Your task to perform on an android device: Do I have any events this weekend? Image 0: 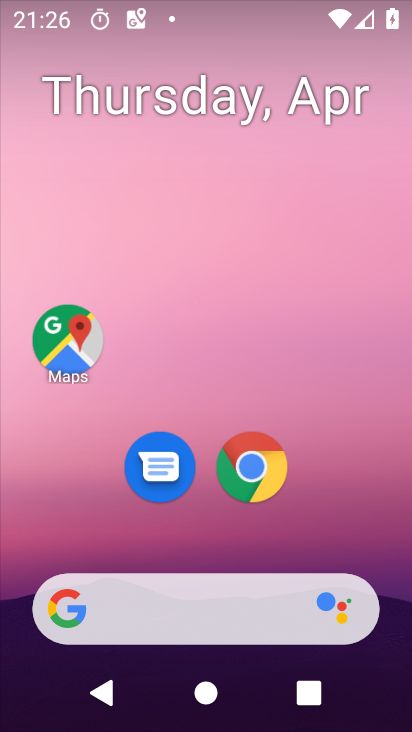
Step 0: drag from (217, 565) to (241, 7)
Your task to perform on an android device: Do I have any events this weekend? Image 1: 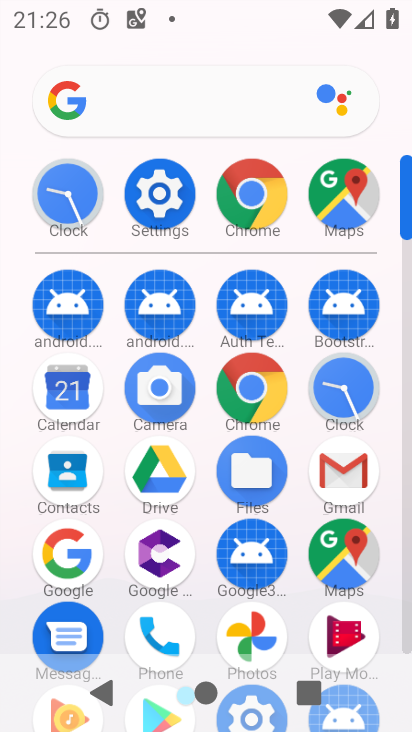
Step 1: click (63, 406)
Your task to perform on an android device: Do I have any events this weekend? Image 2: 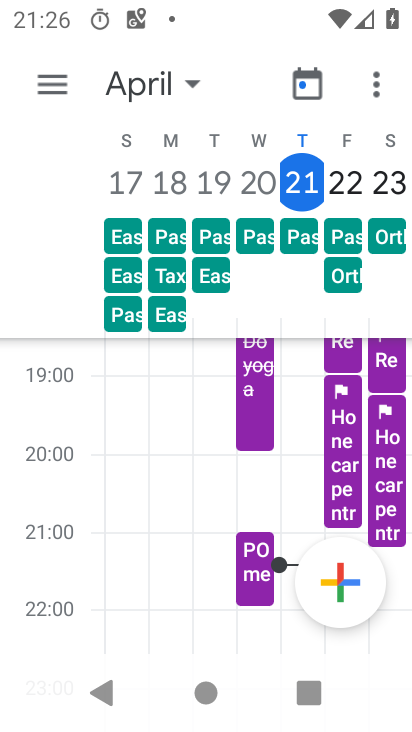
Step 2: task complete